Your task to perform on an android device: Search for pizza restaurants on Maps Image 0: 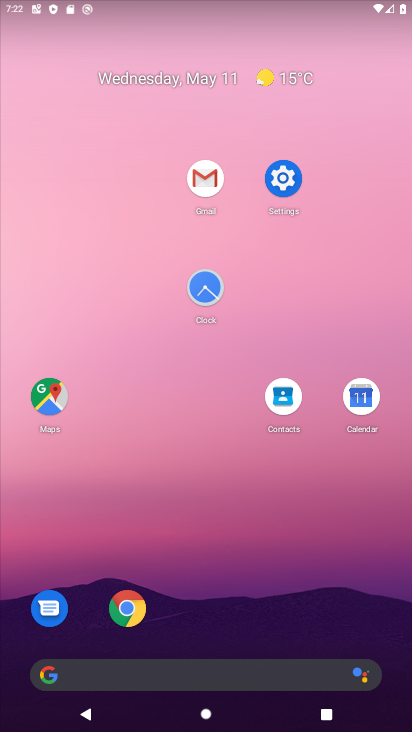
Step 0: click (53, 388)
Your task to perform on an android device: Search for pizza restaurants on Maps Image 1: 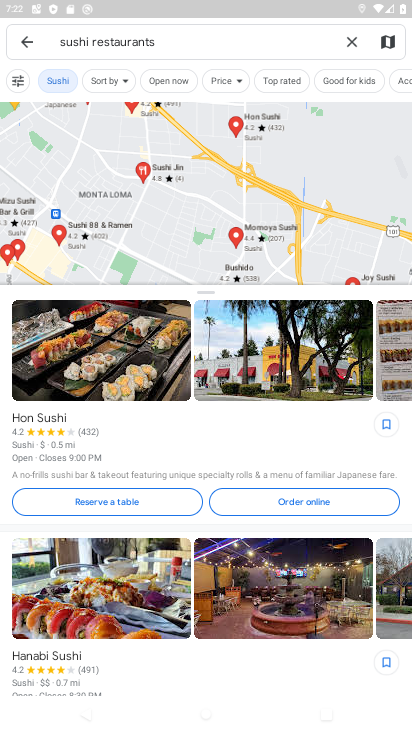
Step 1: click (349, 41)
Your task to perform on an android device: Search for pizza restaurants on Maps Image 2: 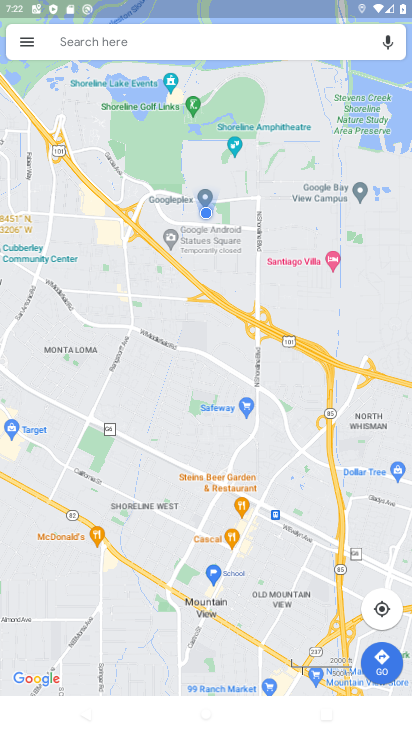
Step 2: click (289, 37)
Your task to perform on an android device: Search for pizza restaurants on Maps Image 3: 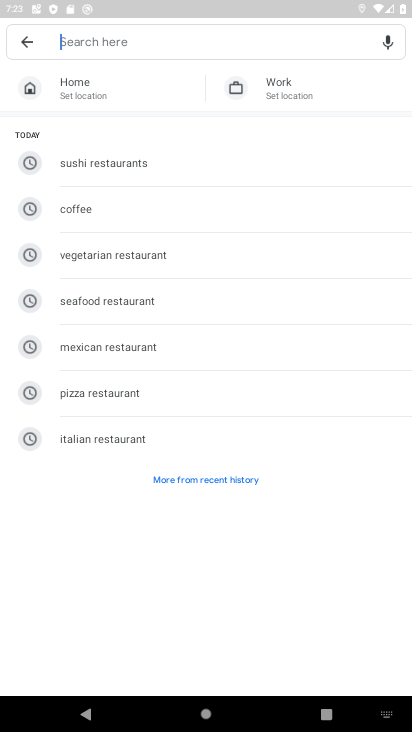
Step 3: click (197, 398)
Your task to perform on an android device: Search for pizza restaurants on Maps Image 4: 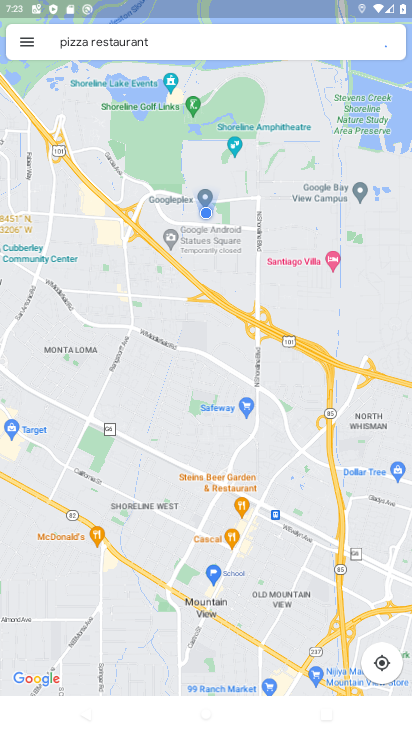
Step 4: task complete